Your task to perform on an android device: change alarm snooze length Image 0: 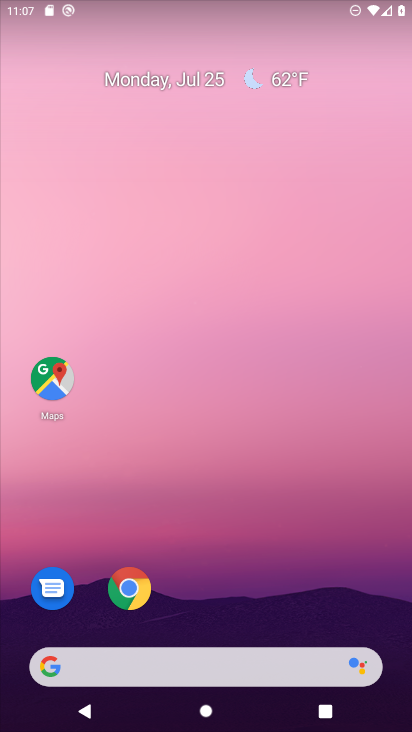
Step 0: drag from (65, 566) to (274, 109)
Your task to perform on an android device: change alarm snooze length Image 1: 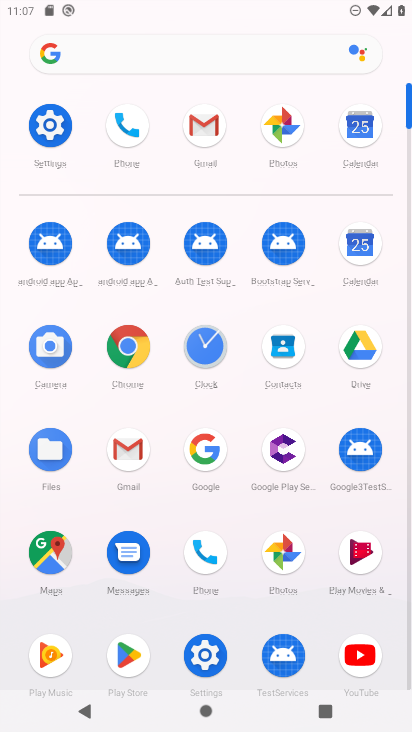
Step 1: click (223, 352)
Your task to perform on an android device: change alarm snooze length Image 2: 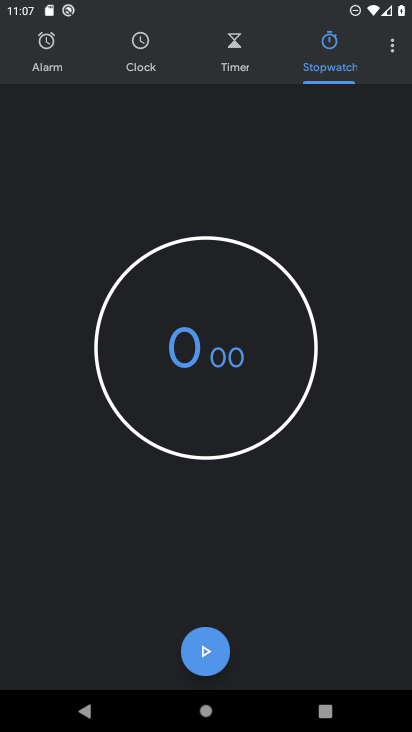
Step 2: click (399, 51)
Your task to perform on an android device: change alarm snooze length Image 3: 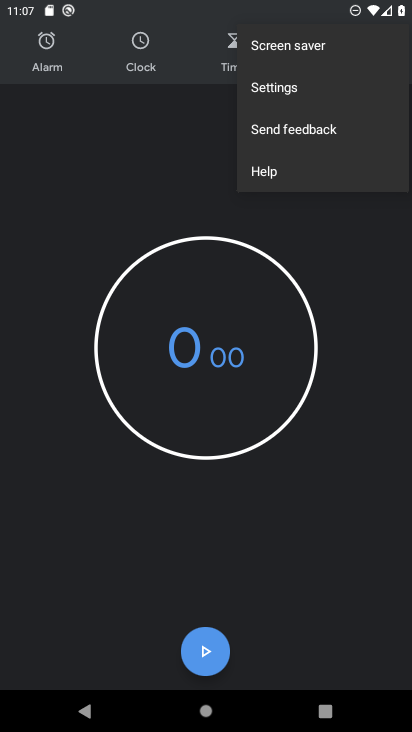
Step 3: click (272, 95)
Your task to perform on an android device: change alarm snooze length Image 4: 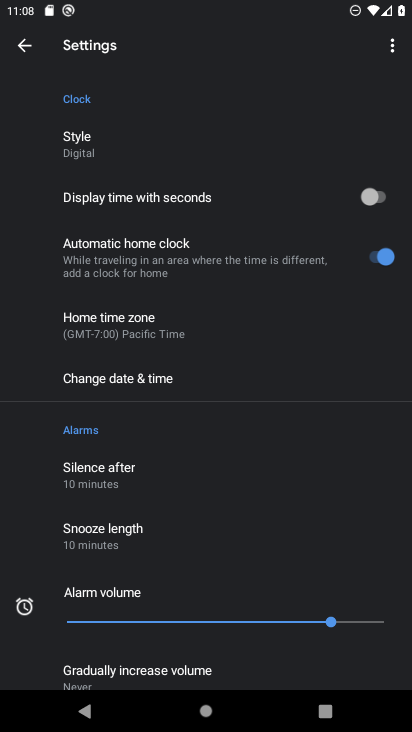
Step 4: click (112, 533)
Your task to perform on an android device: change alarm snooze length Image 5: 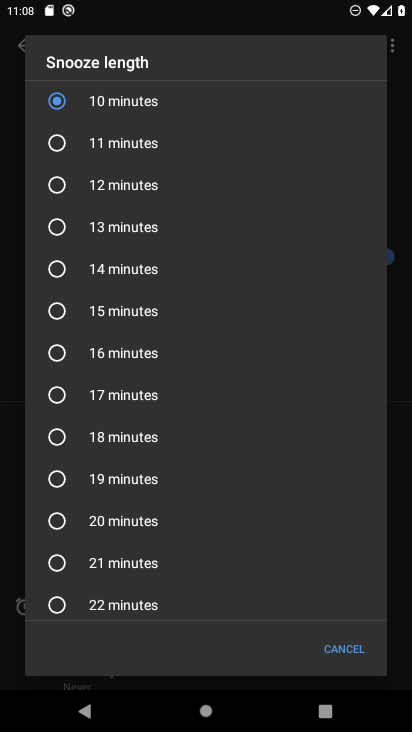
Step 5: click (84, 138)
Your task to perform on an android device: change alarm snooze length Image 6: 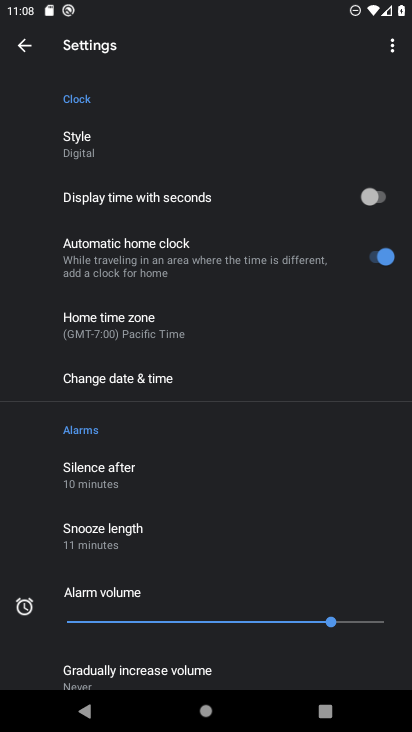
Step 6: task complete